Your task to perform on an android device: turn smart compose on in the gmail app Image 0: 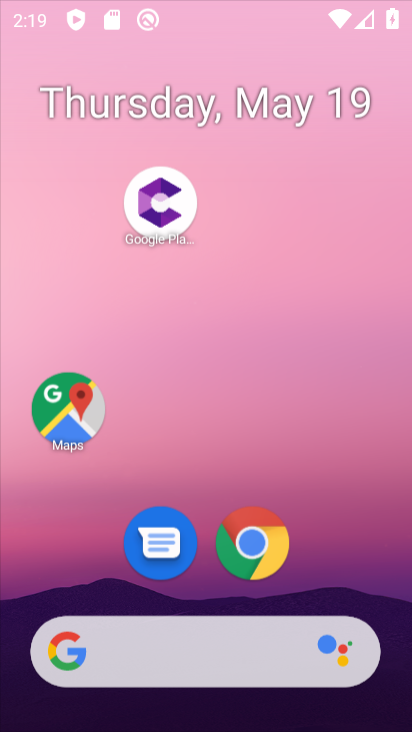
Step 0: drag from (221, 441) to (182, 218)
Your task to perform on an android device: turn smart compose on in the gmail app Image 1: 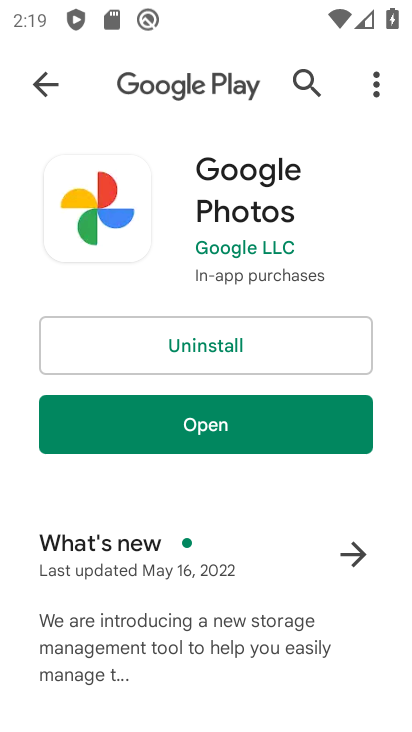
Step 1: press home button
Your task to perform on an android device: turn smart compose on in the gmail app Image 2: 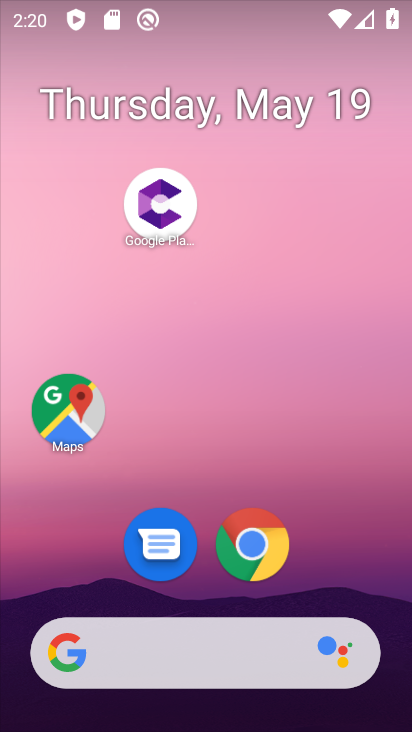
Step 2: drag from (279, 642) to (230, 203)
Your task to perform on an android device: turn smart compose on in the gmail app Image 3: 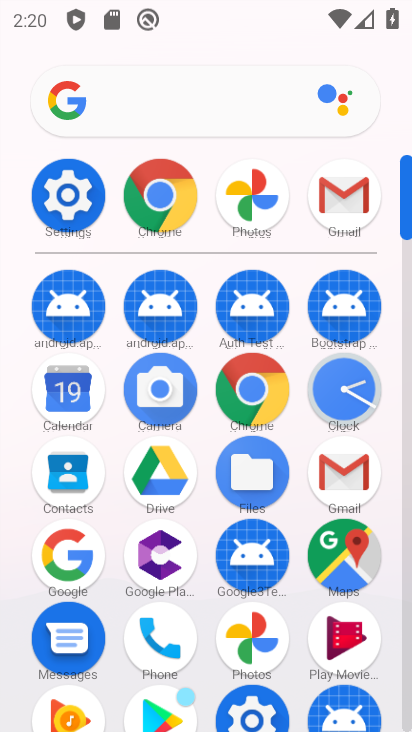
Step 3: click (341, 196)
Your task to perform on an android device: turn smart compose on in the gmail app Image 4: 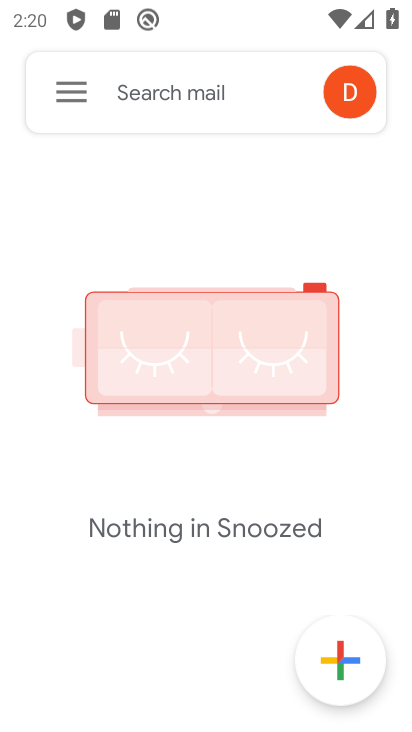
Step 4: click (61, 91)
Your task to perform on an android device: turn smart compose on in the gmail app Image 5: 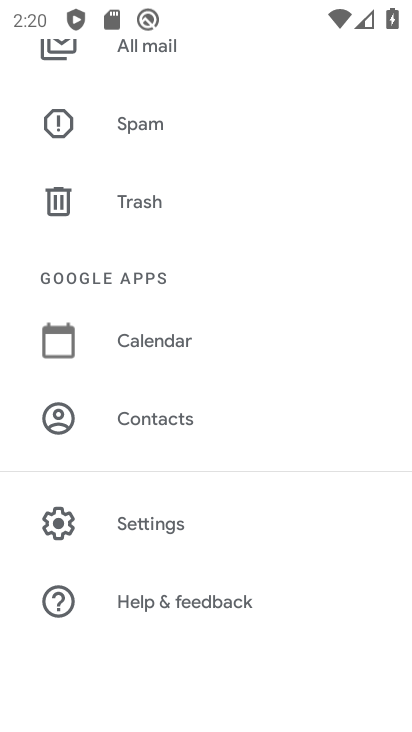
Step 5: click (153, 516)
Your task to perform on an android device: turn smart compose on in the gmail app Image 6: 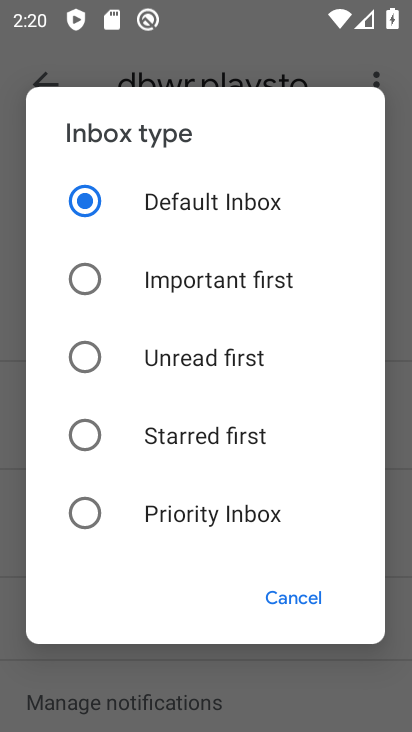
Step 6: click (285, 595)
Your task to perform on an android device: turn smart compose on in the gmail app Image 7: 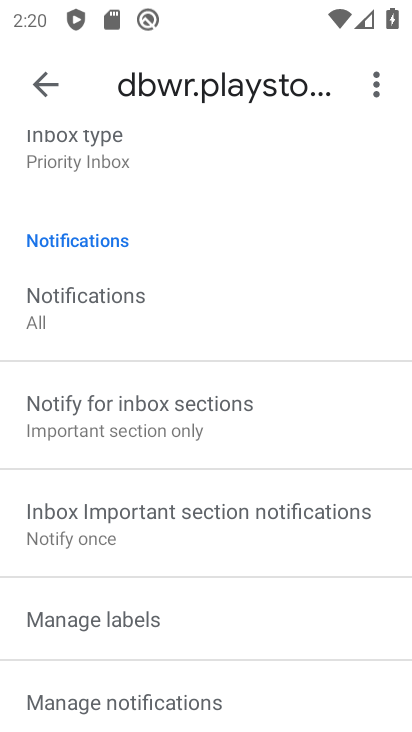
Step 7: drag from (215, 585) to (236, 448)
Your task to perform on an android device: turn smart compose on in the gmail app Image 8: 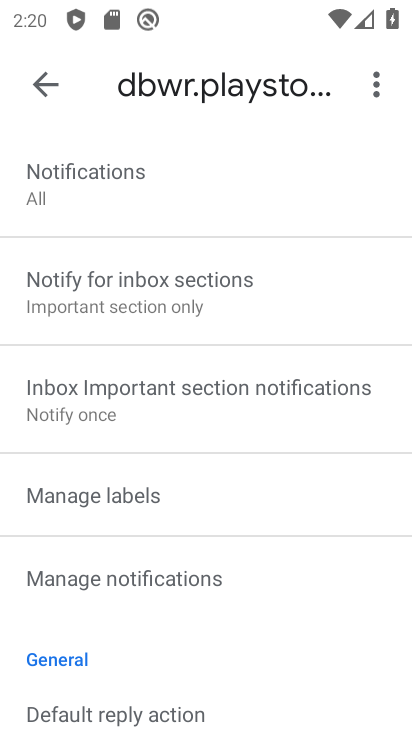
Step 8: drag from (182, 611) to (200, 354)
Your task to perform on an android device: turn smart compose on in the gmail app Image 9: 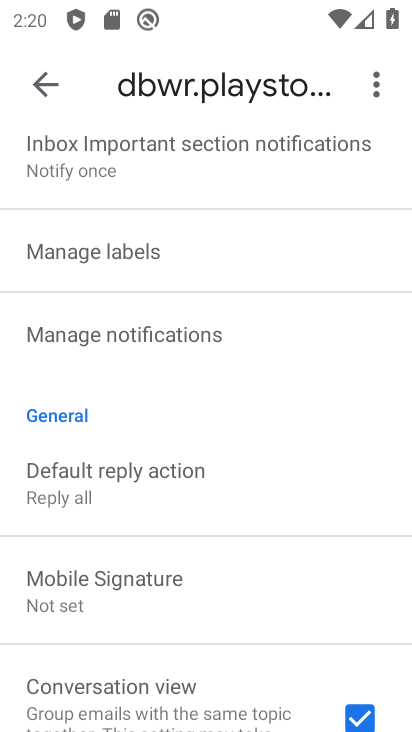
Step 9: drag from (163, 557) to (140, 328)
Your task to perform on an android device: turn smart compose on in the gmail app Image 10: 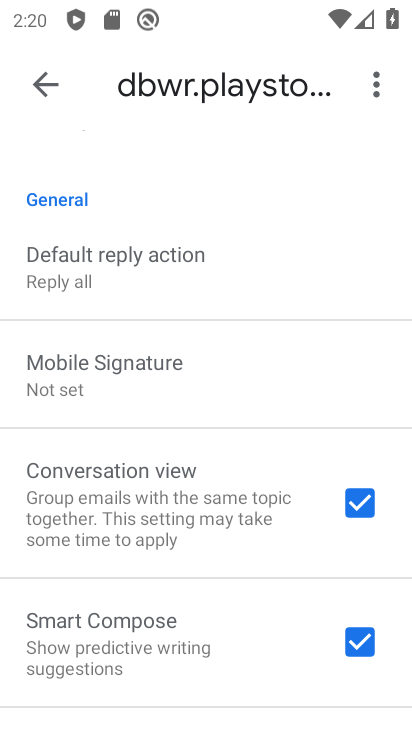
Step 10: click (347, 634)
Your task to perform on an android device: turn smart compose on in the gmail app Image 11: 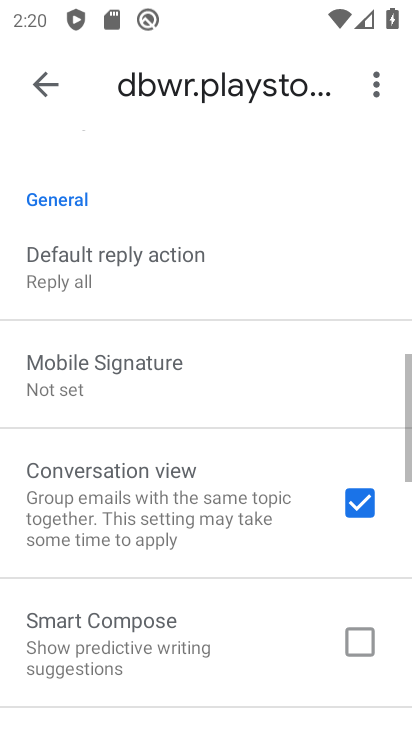
Step 11: click (348, 634)
Your task to perform on an android device: turn smart compose on in the gmail app Image 12: 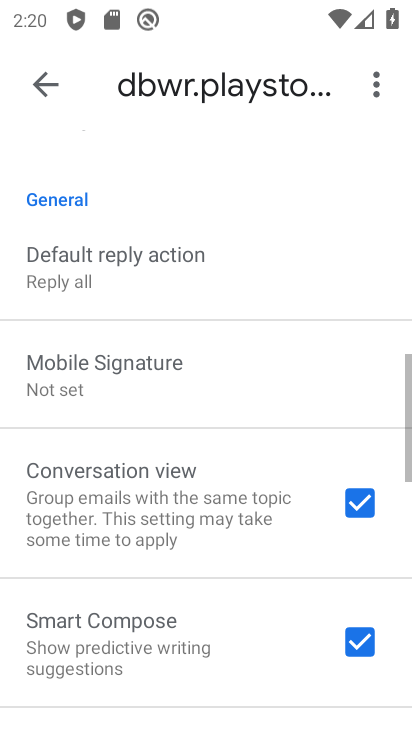
Step 12: task complete